Your task to perform on an android device: turn off picture-in-picture Image 0: 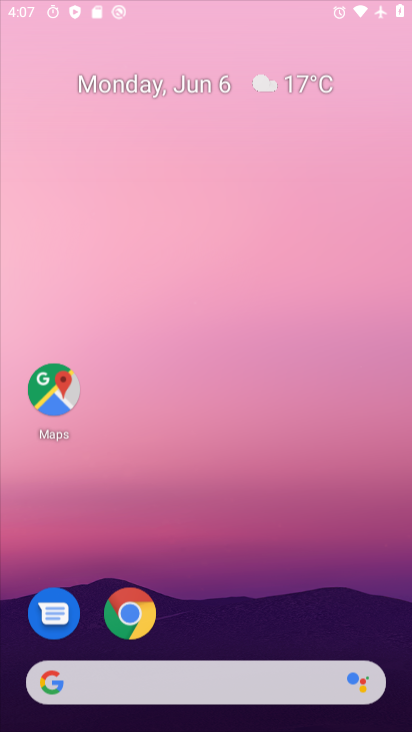
Step 0: click (228, 58)
Your task to perform on an android device: turn off picture-in-picture Image 1: 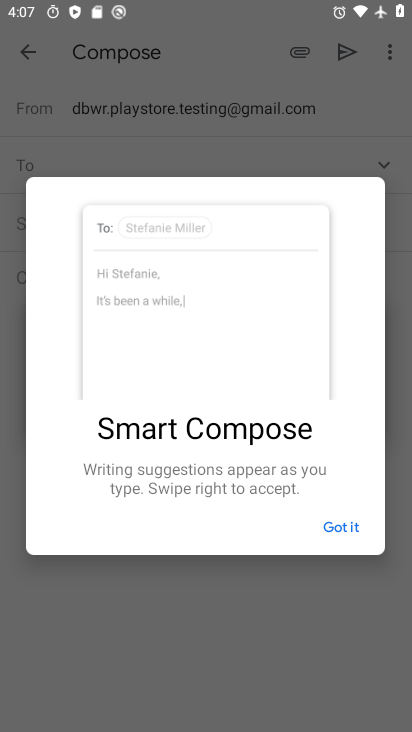
Step 1: press home button
Your task to perform on an android device: turn off picture-in-picture Image 2: 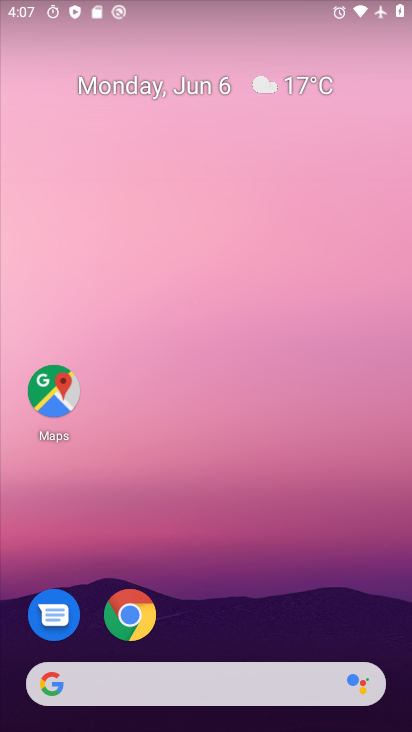
Step 2: drag from (220, 608) to (208, 80)
Your task to perform on an android device: turn off picture-in-picture Image 3: 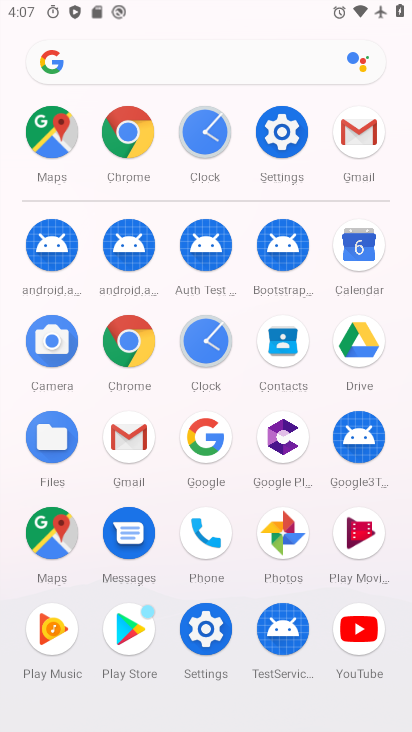
Step 3: click (283, 131)
Your task to perform on an android device: turn off picture-in-picture Image 4: 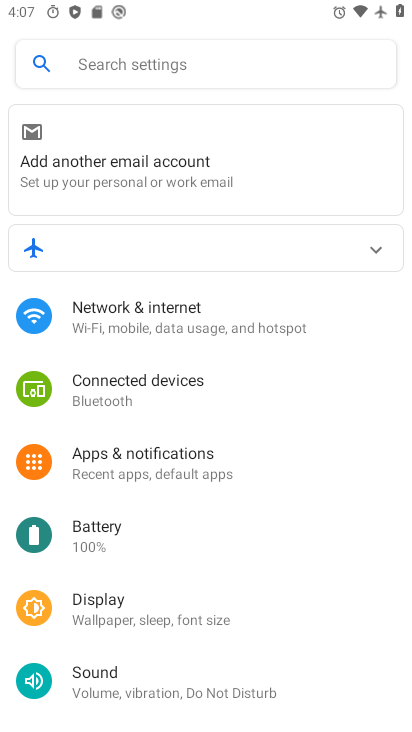
Step 4: drag from (252, 604) to (287, 173)
Your task to perform on an android device: turn off picture-in-picture Image 5: 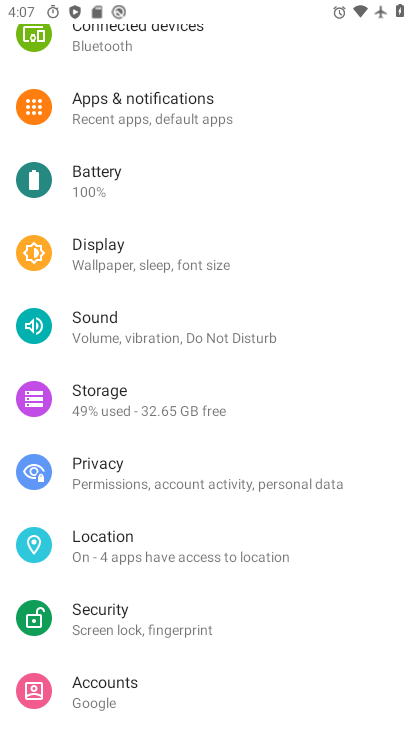
Step 5: drag from (215, 579) to (221, 219)
Your task to perform on an android device: turn off picture-in-picture Image 6: 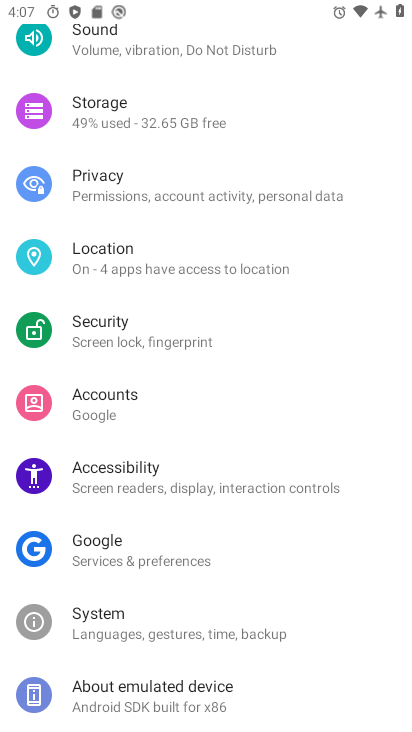
Step 6: drag from (218, 128) to (218, 495)
Your task to perform on an android device: turn off picture-in-picture Image 7: 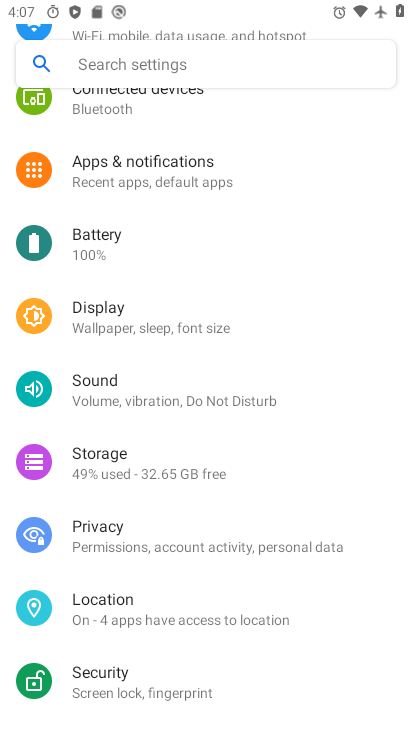
Step 7: click (189, 177)
Your task to perform on an android device: turn off picture-in-picture Image 8: 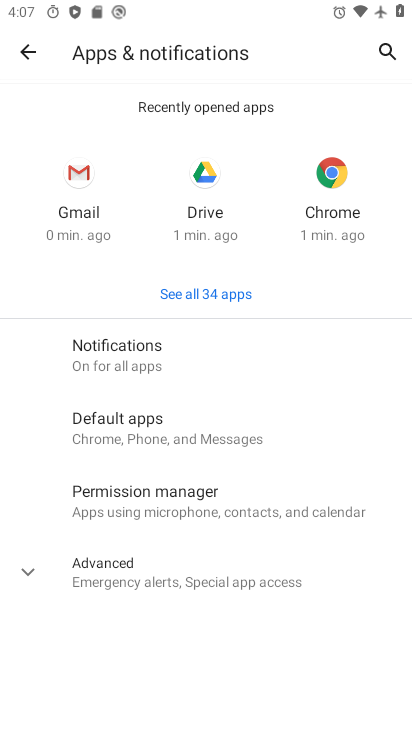
Step 8: click (31, 567)
Your task to perform on an android device: turn off picture-in-picture Image 9: 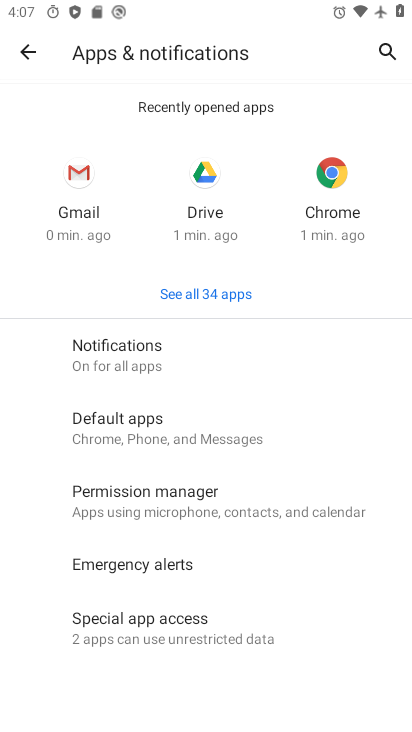
Step 9: click (181, 352)
Your task to perform on an android device: turn off picture-in-picture Image 10: 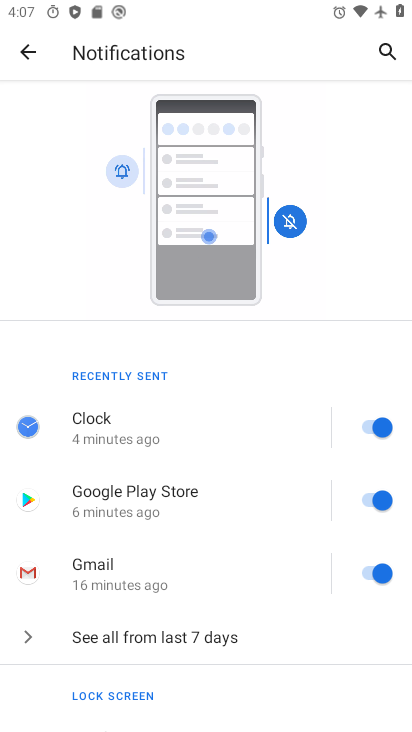
Step 10: click (30, 50)
Your task to perform on an android device: turn off picture-in-picture Image 11: 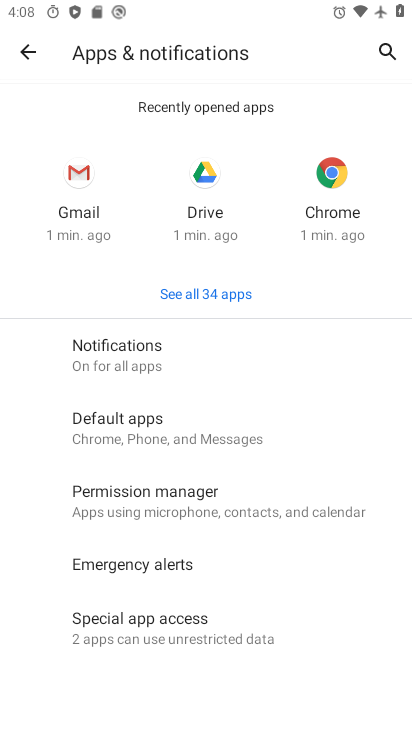
Step 11: click (141, 628)
Your task to perform on an android device: turn off picture-in-picture Image 12: 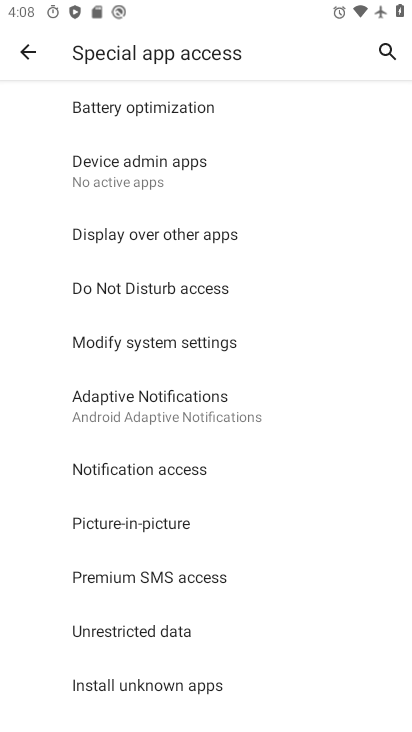
Step 12: click (135, 524)
Your task to perform on an android device: turn off picture-in-picture Image 13: 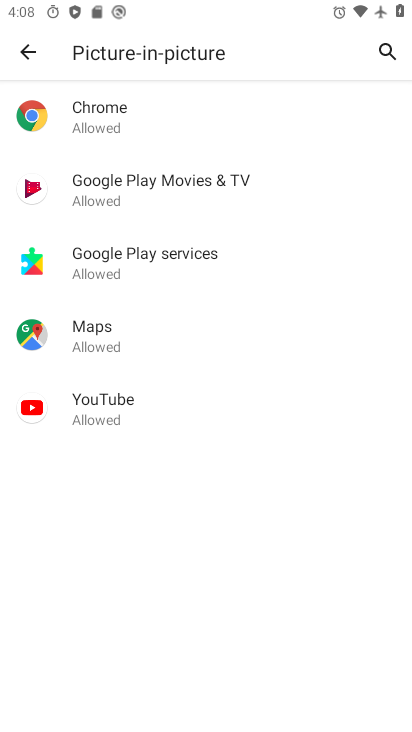
Step 13: click (118, 130)
Your task to perform on an android device: turn off picture-in-picture Image 14: 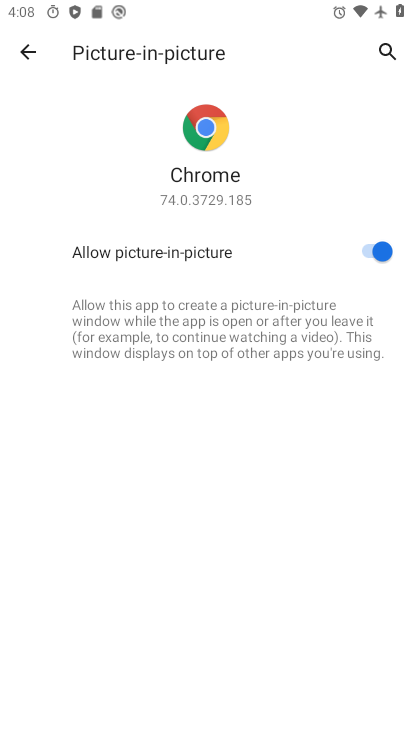
Step 14: click (374, 251)
Your task to perform on an android device: turn off picture-in-picture Image 15: 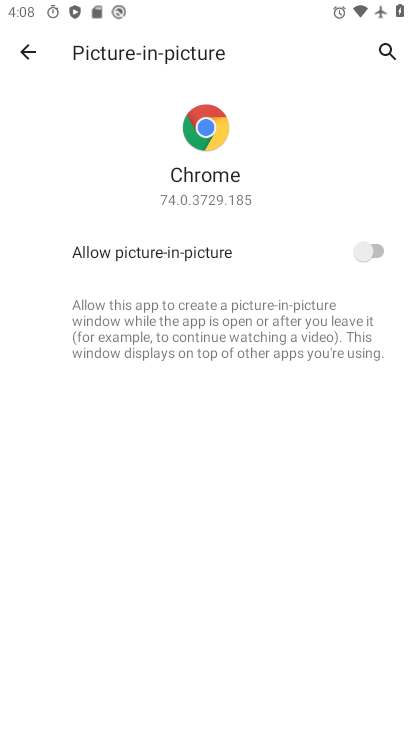
Step 15: click (26, 53)
Your task to perform on an android device: turn off picture-in-picture Image 16: 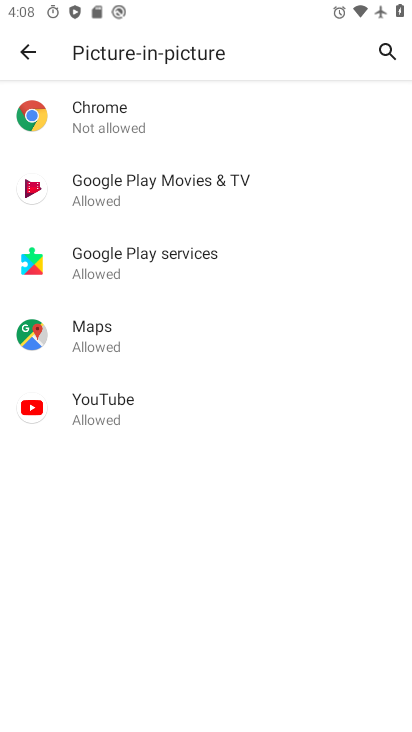
Step 16: click (138, 198)
Your task to perform on an android device: turn off picture-in-picture Image 17: 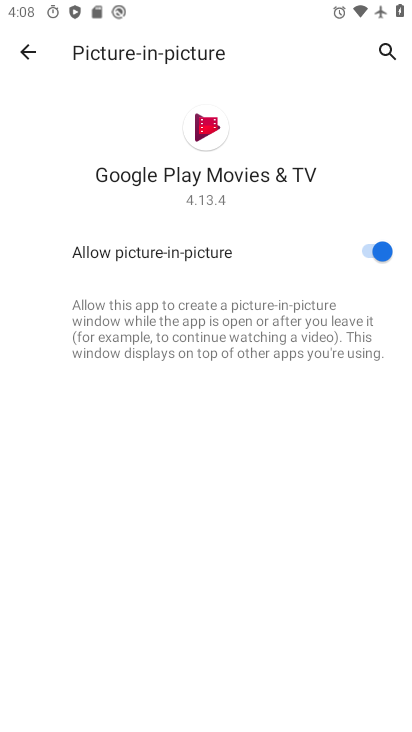
Step 17: click (368, 252)
Your task to perform on an android device: turn off picture-in-picture Image 18: 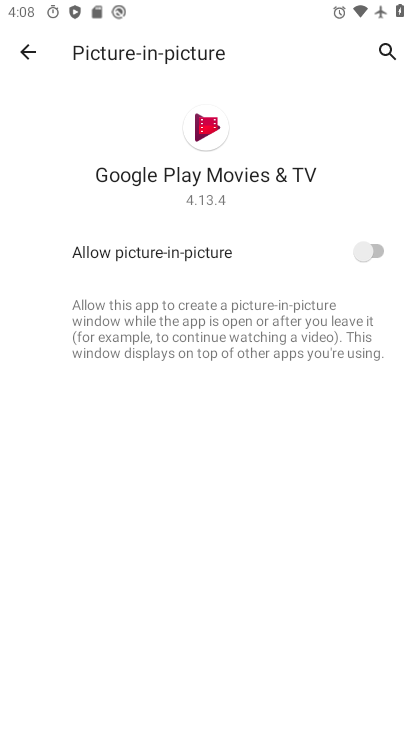
Step 18: click (20, 50)
Your task to perform on an android device: turn off picture-in-picture Image 19: 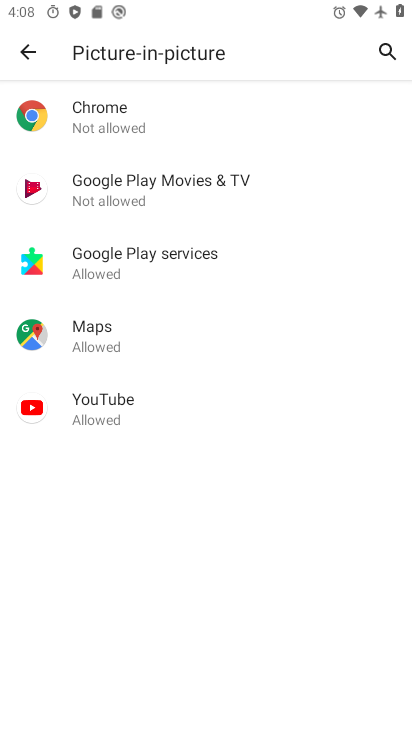
Step 19: click (114, 264)
Your task to perform on an android device: turn off picture-in-picture Image 20: 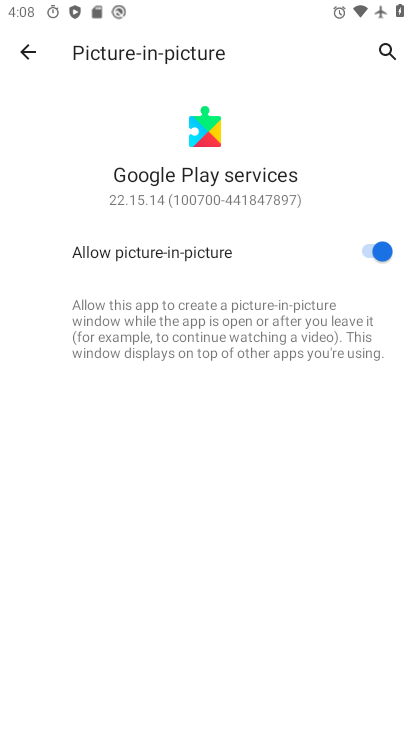
Step 20: click (371, 246)
Your task to perform on an android device: turn off picture-in-picture Image 21: 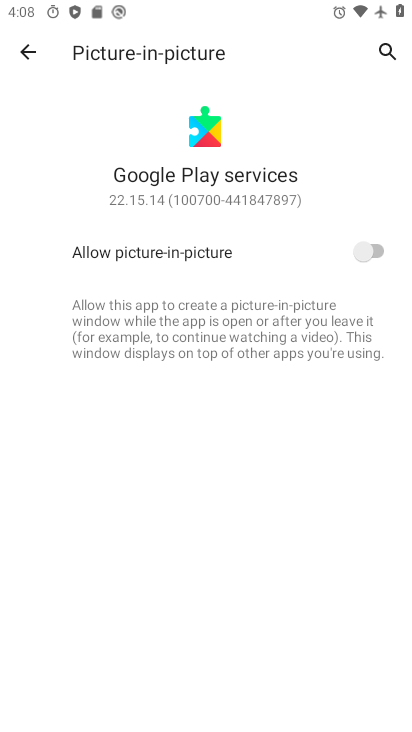
Step 21: click (32, 53)
Your task to perform on an android device: turn off picture-in-picture Image 22: 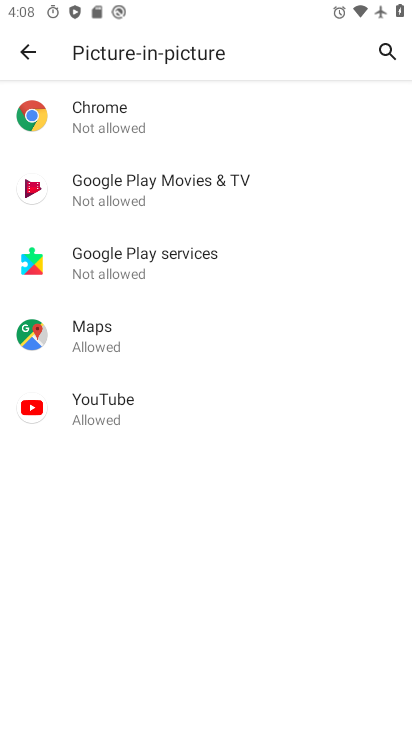
Step 22: click (98, 334)
Your task to perform on an android device: turn off picture-in-picture Image 23: 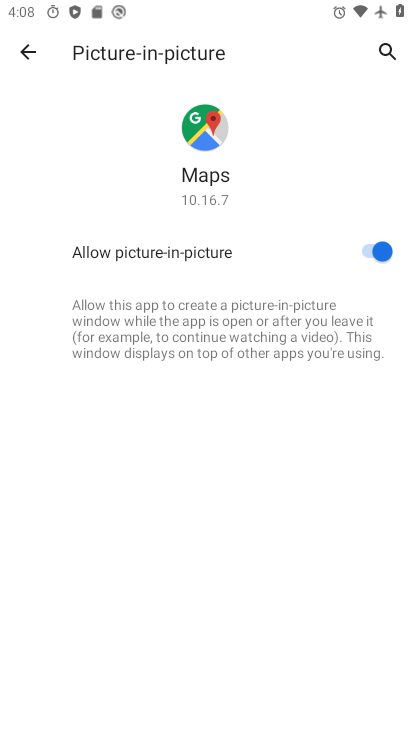
Step 23: click (362, 242)
Your task to perform on an android device: turn off picture-in-picture Image 24: 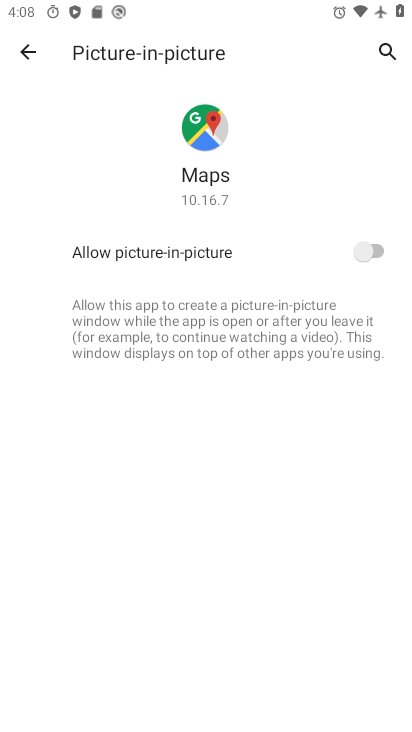
Step 24: click (29, 50)
Your task to perform on an android device: turn off picture-in-picture Image 25: 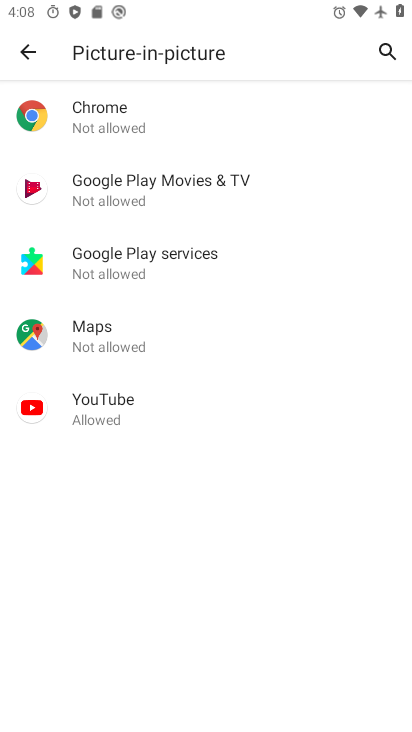
Step 25: click (94, 426)
Your task to perform on an android device: turn off picture-in-picture Image 26: 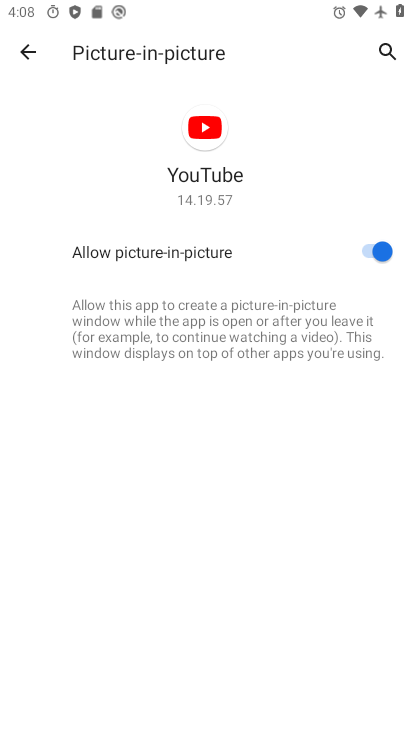
Step 26: click (360, 252)
Your task to perform on an android device: turn off picture-in-picture Image 27: 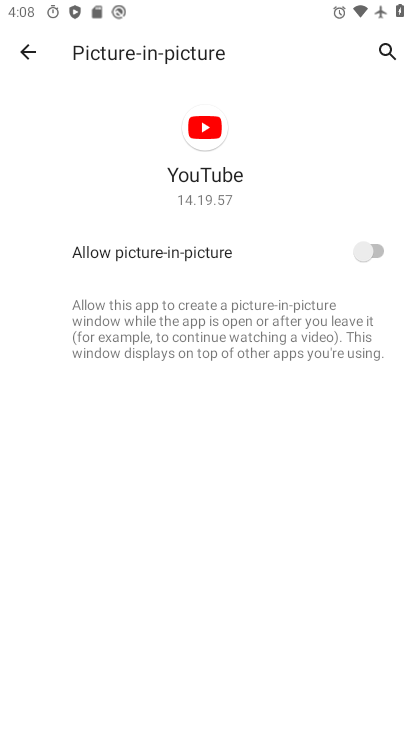
Step 27: click (26, 70)
Your task to perform on an android device: turn off picture-in-picture Image 28: 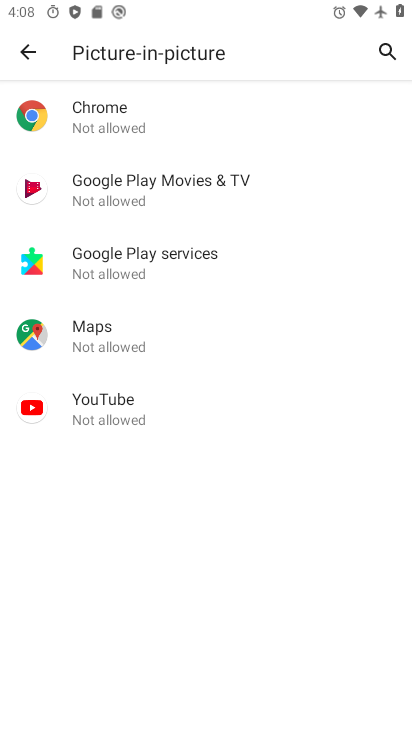
Step 28: task complete